Your task to perform on an android device: Go to notification settings Image 0: 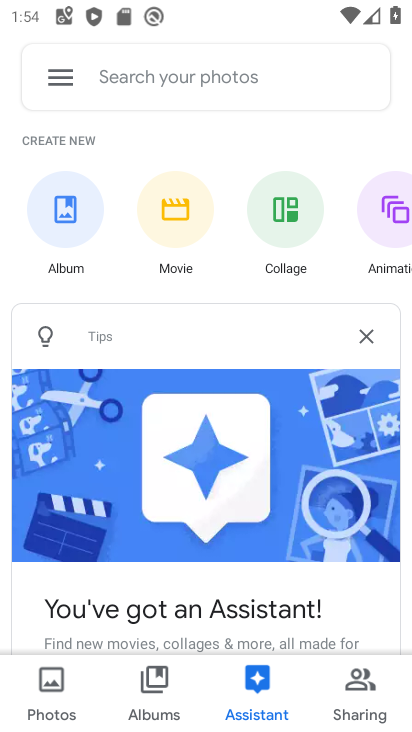
Step 0: press home button
Your task to perform on an android device: Go to notification settings Image 1: 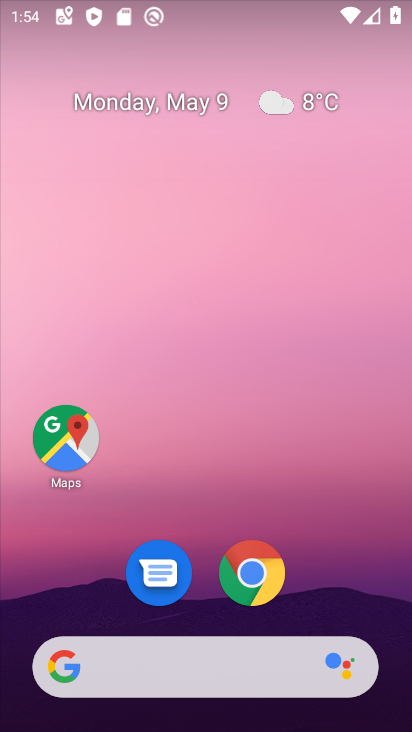
Step 1: drag from (200, 539) to (160, 68)
Your task to perform on an android device: Go to notification settings Image 2: 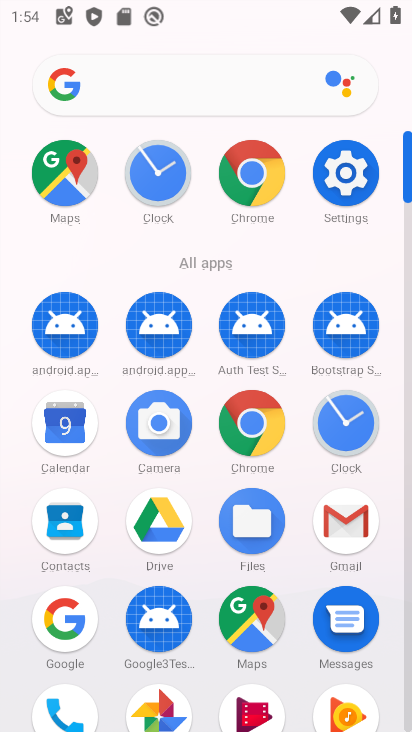
Step 2: click (328, 170)
Your task to perform on an android device: Go to notification settings Image 3: 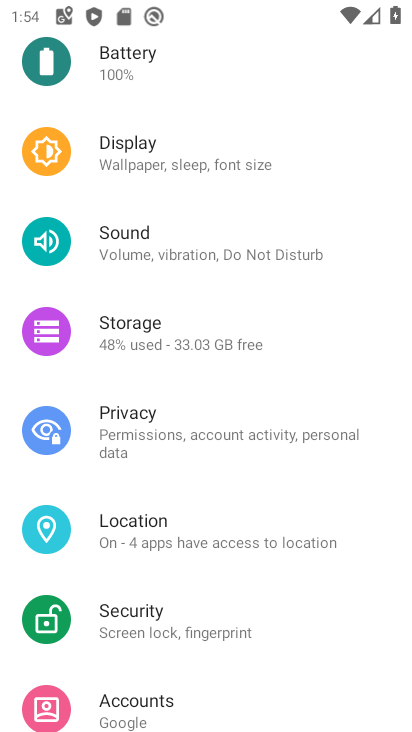
Step 3: drag from (182, 157) to (227, 617)
Your task to perform on an android device: Go to notification settings Image 4: 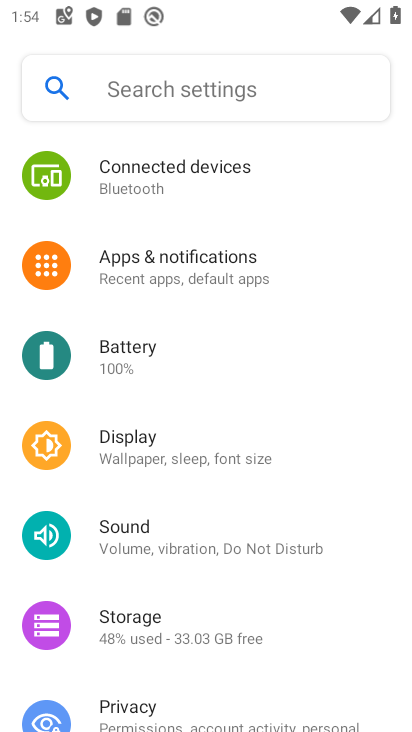
Step 4: click (184, 275)
Your task to perform on an android device: Go to notification settings Image 5: 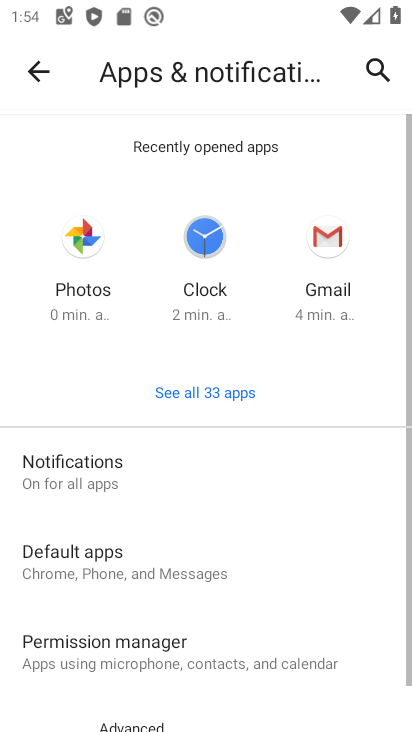
Step 5: click (104, 468)
Your task to perform on an android device: Go to notification settings Image 6: 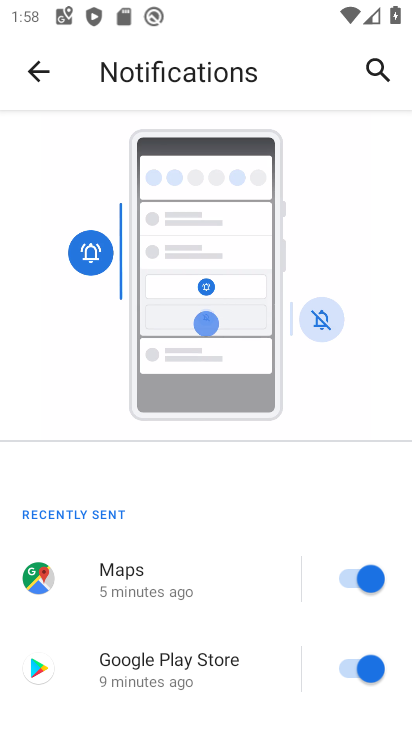
Step 6: task complete